Your task to perform on an android device: Search for sushi restaurants on Maps Image 0: 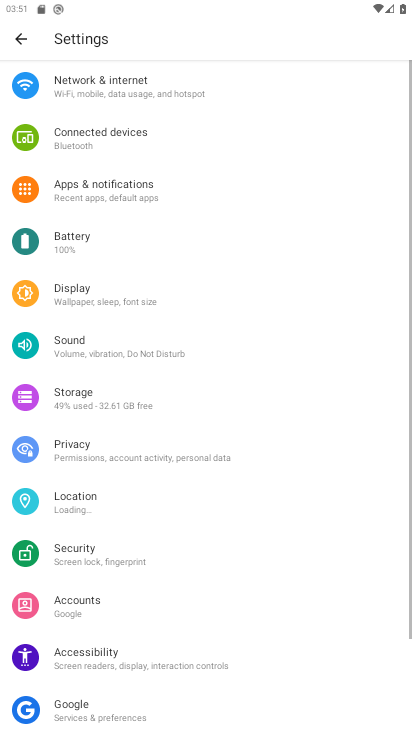
Step 0: drag from (205, 654) to (268, 289)
Your task to perform on an android device: Search for sushi restaurants on Maps Image 1: 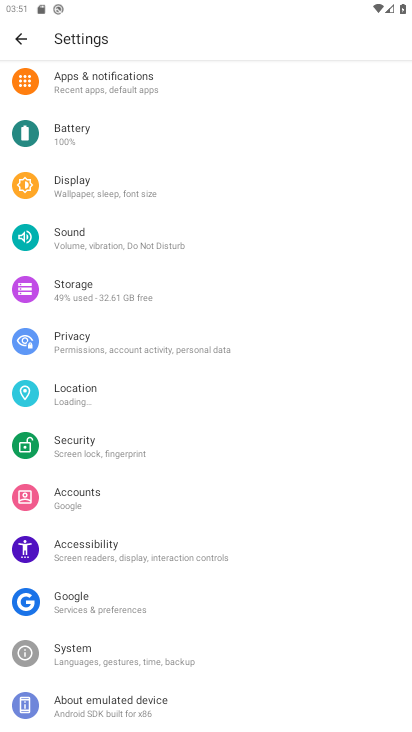
Step 1: press home button
Your task to perform on an android device: Search for sushi restaurants on Maps Image 2: 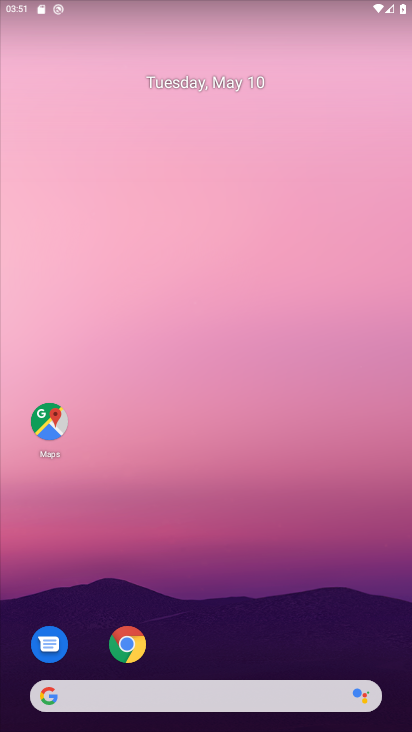
Step 2: drag from (207, 656) to (256, 55)
Your task to perform on an android device: Search for sushi restaurants on Maps Image 3: 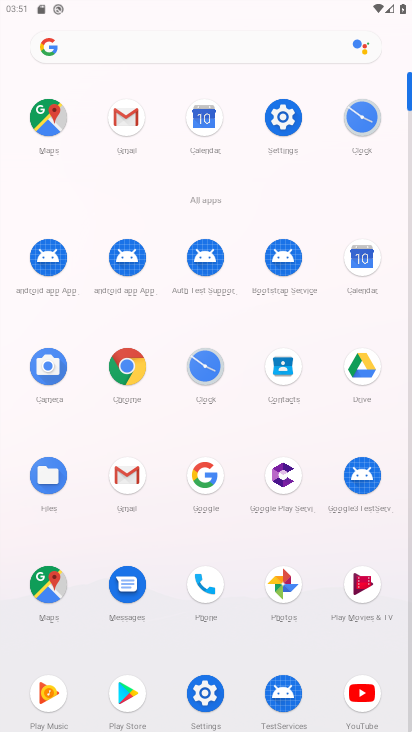
Step 3: click (51, 580)
Your task to perform on an android device: Search for sushi restaurants on Maps Image 4: 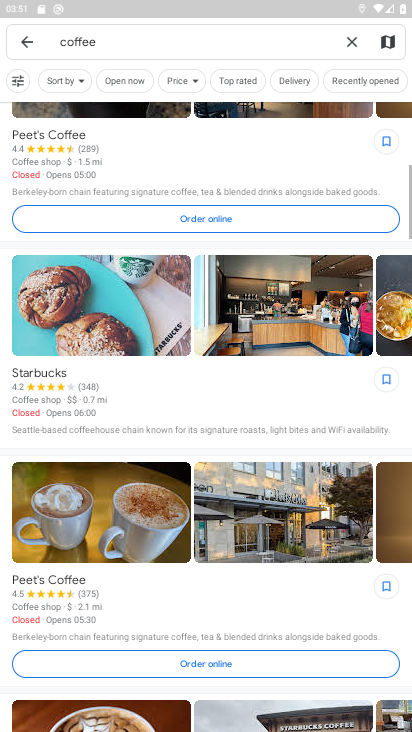
Step 4: click (351, 43)
Your task to perform on an android device: Search for sushi restaurants on Maps Image 5: 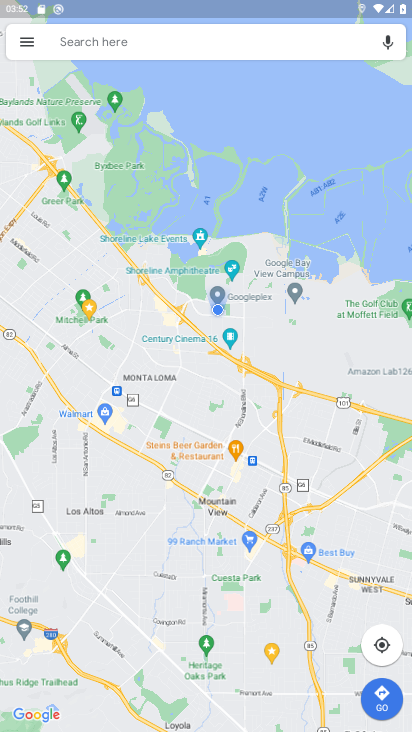
Step 5: click (110, 43)
Your task to perform on an android device: Search for sushi restaurants on Maps Image 6: 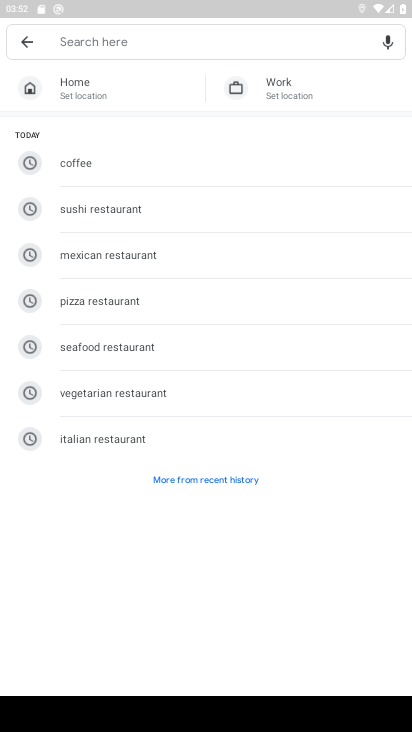
Step 6: click (91, 205)
Your task to perform on an android device: Search for sushi restaurants on Maps Image 7: 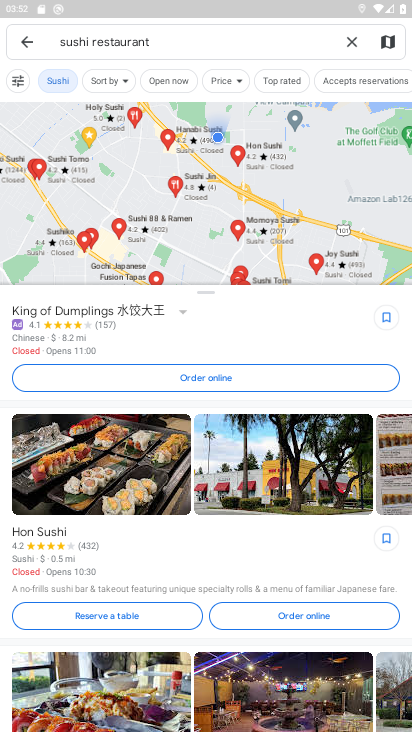
Step 7: task complete